Your task to perform on an android device: Open settings Image 0: 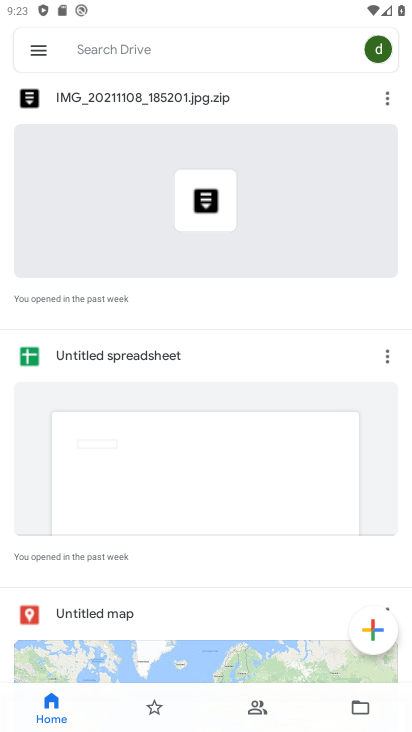
Step 0: press home button
Your task to perform on an android device: Open settings Image 1: 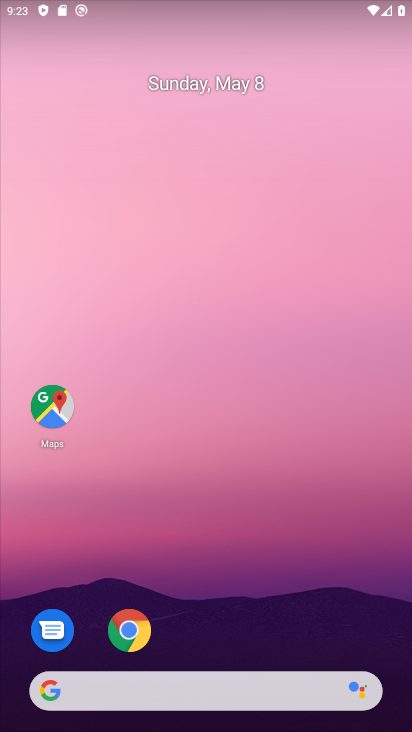
Step 1: drag from (283, 521) to (269, 173)
Your task to perform on an android device: Open settings Image 2: 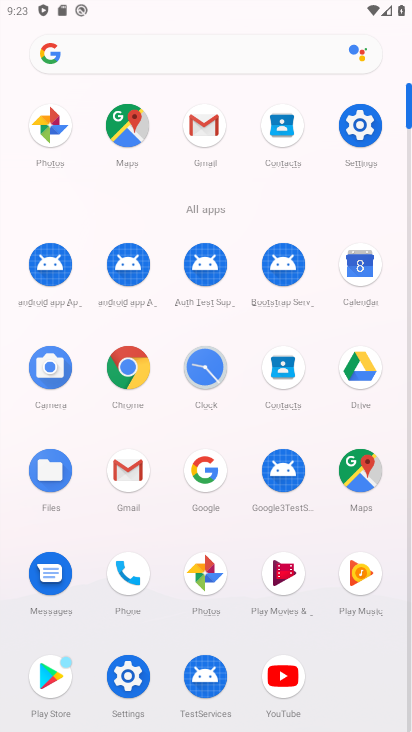
Step 2: click (126, 677)
Your task to perform on an android device: Open settings Image 3: 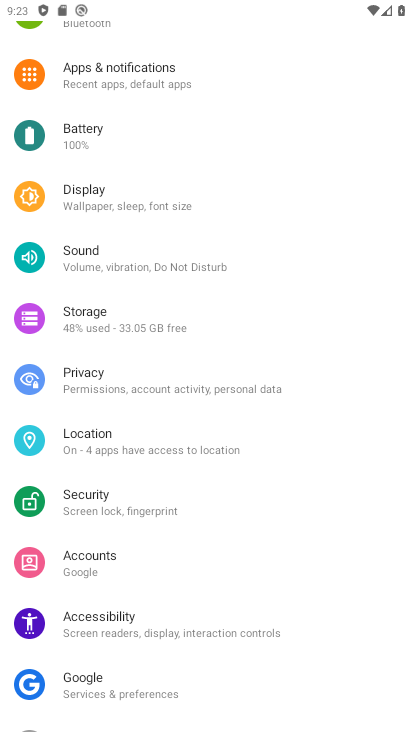
Step 3: task complete